Your task to perform on an android device: Go to Android settings Image 0: 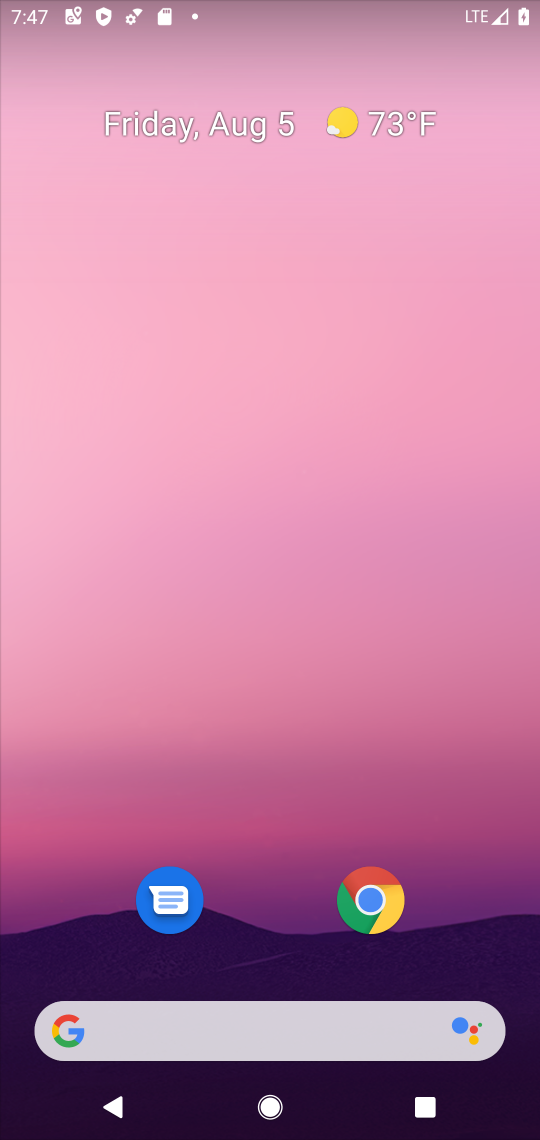
Step 0: drag from (257, 899) to (260, 301)
Your task to perform on an android device: Go to Android settings Image 1: 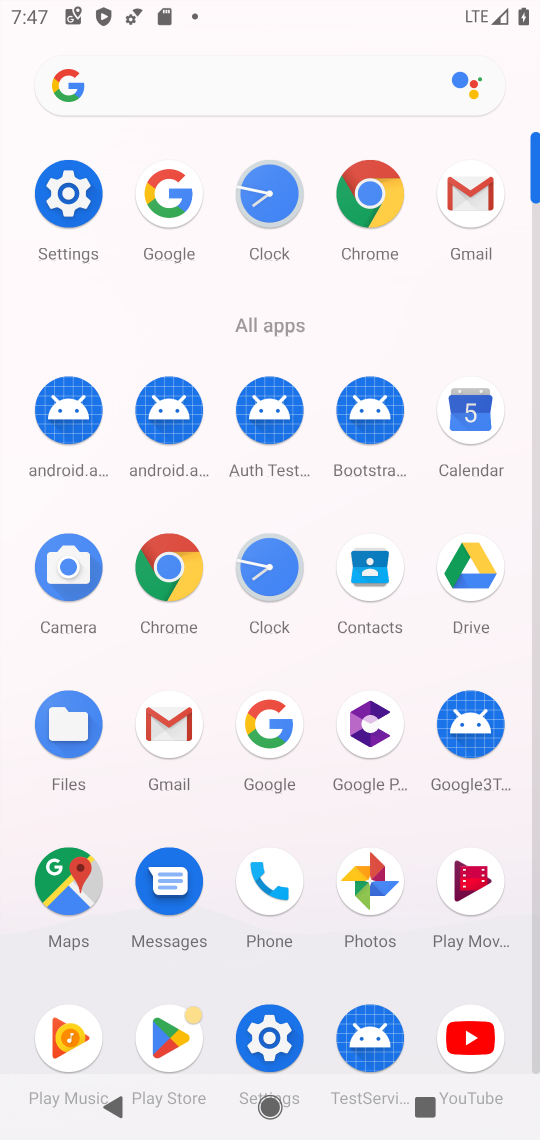
Step 1: click (48, 194)
Your task to perform on an android device: Go to Android settings Image 2: 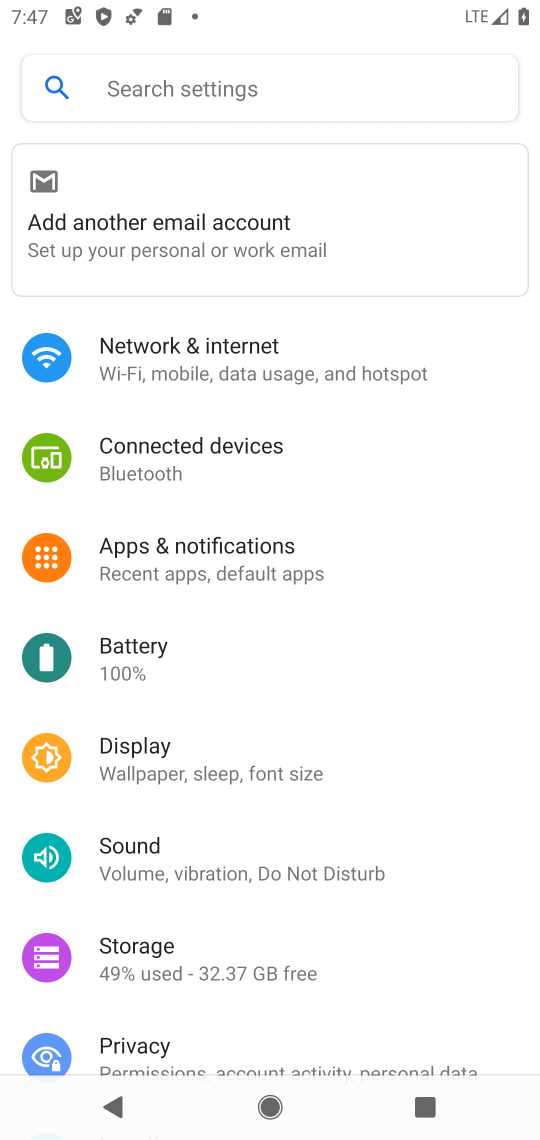
Step 2: task complete